Your task to perform on an android device: turn off picture-in-picture Image 0: 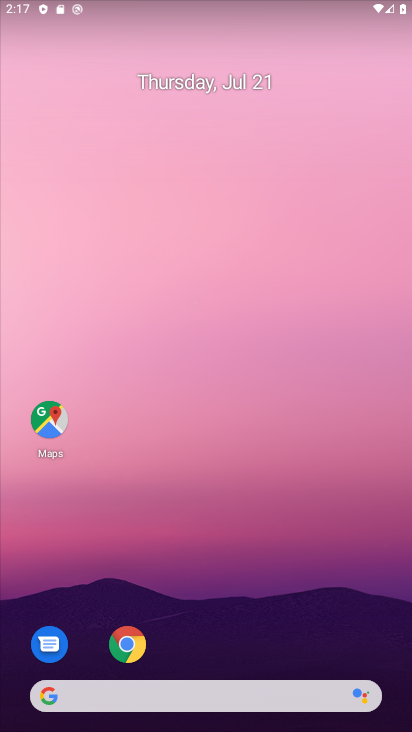
Step 0: drag from (107, 670) to (133, 140)
Your task to perform on an android device: turn off picture-in-picture Image 1: 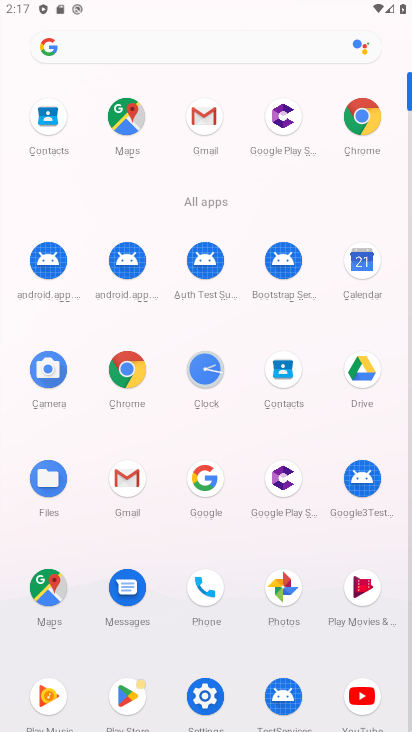
Step 1: click (188, 700)
Your task to perform on an android device: turn off picture-in-picture Image 2: 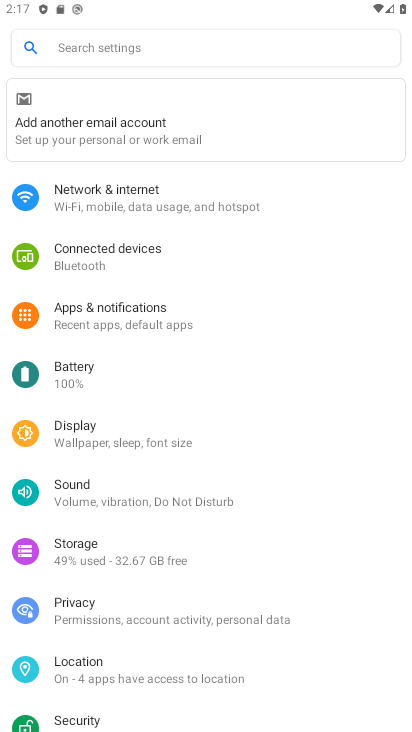
Step 2: click (92, 310)
Your task to perform on an android device: turn off picture-in-picture Image 3: 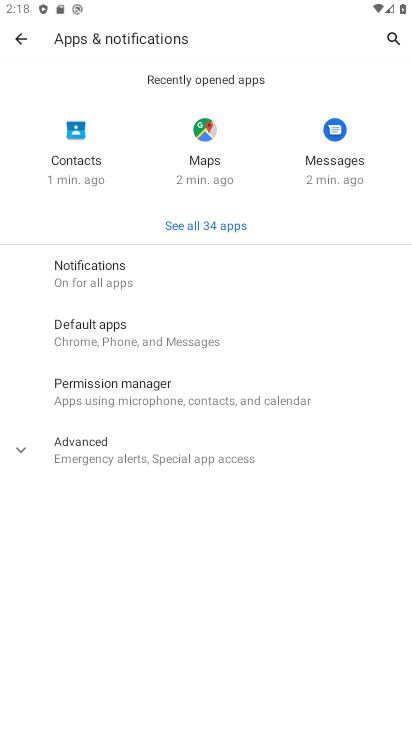
Step 3: click (155, 453)
Your task to perform on an android device: turn off picture-in-picture Image 4: 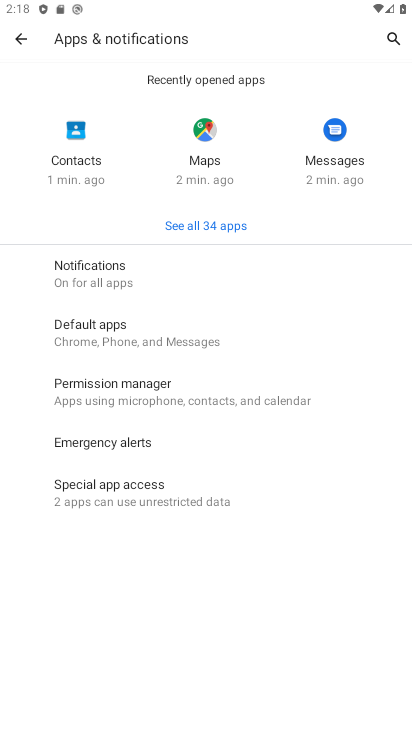
Step 4: task complete